Your task to perform on an android device: Show the shopping cart on bestbuy.com. Search for "acer predator" on bestbuy.com, select the first entry, and add it to the cart. Image 0: 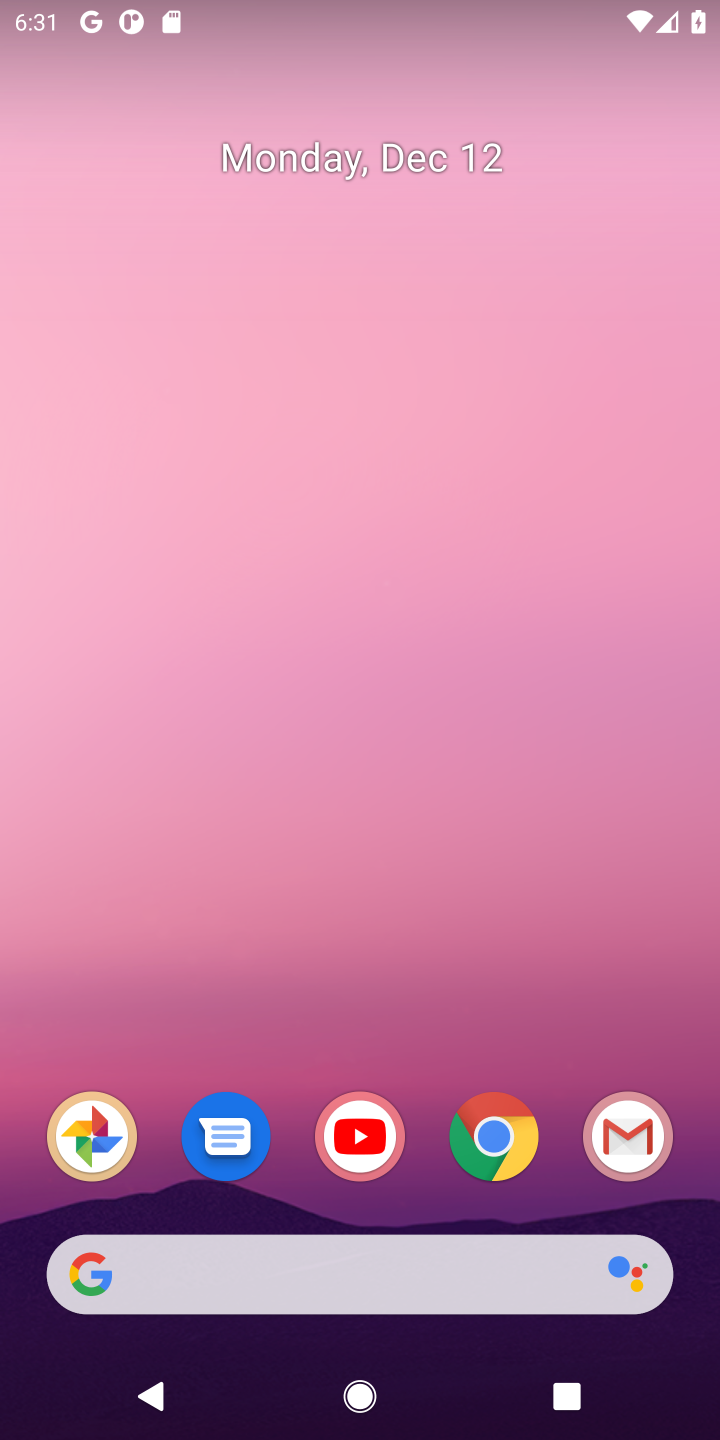
Step 0: click (499, 1135)
Your task to perform on an android device: Show the shopping cart on bestbuy.com. Search for "acer predator" on bestbuy.com, select the first entry, and add it to the cart. Image 1: 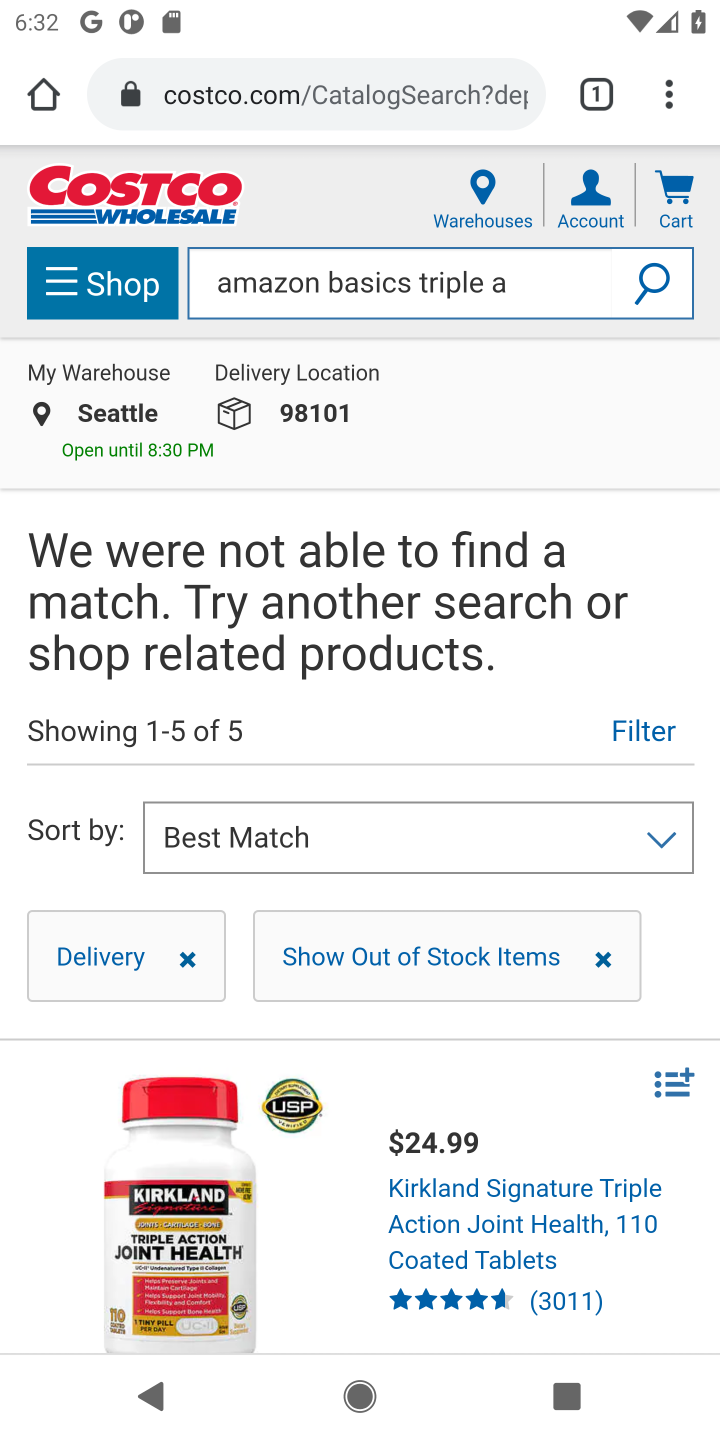
Step 1: click (289, 95)
Your task to perform on an android device: Show the shopping cart on bestbuy.com. Search for "acer predator" on bestbuy.com, select the first entry, and add it to the cart. Image 2: 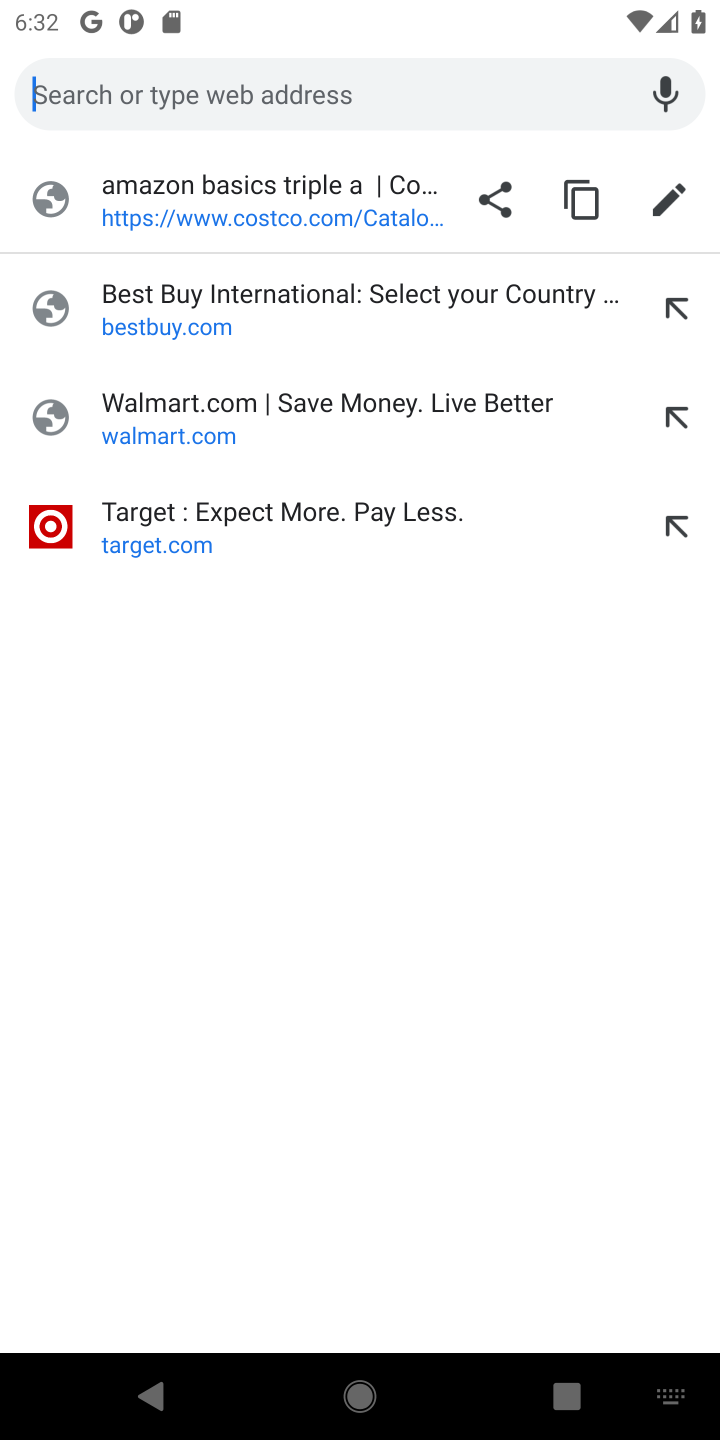
Step 2: click (148, 333)
Your task to perform on an android device: Show the shopping cart on bestbuy.com. Search for "acer predator" on bestbuy.com, select the first entry, and add it to the cart. Image 3: 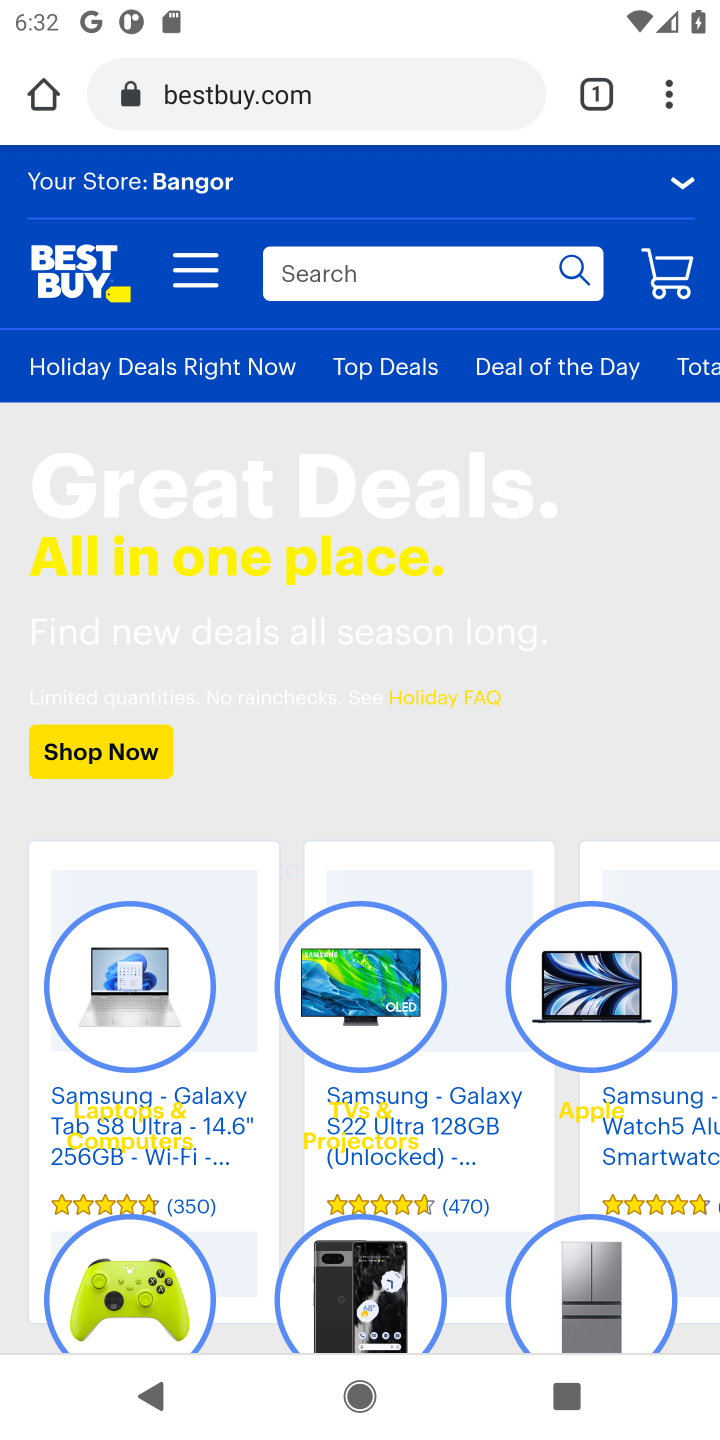
Step 3: click (678, 265)
Your task to perform on an android device: Show the shopping cart on bestbuy.com. Search for "acer predator" on bestbuy.com, select the first entry, and add it to the cart. Image 4: 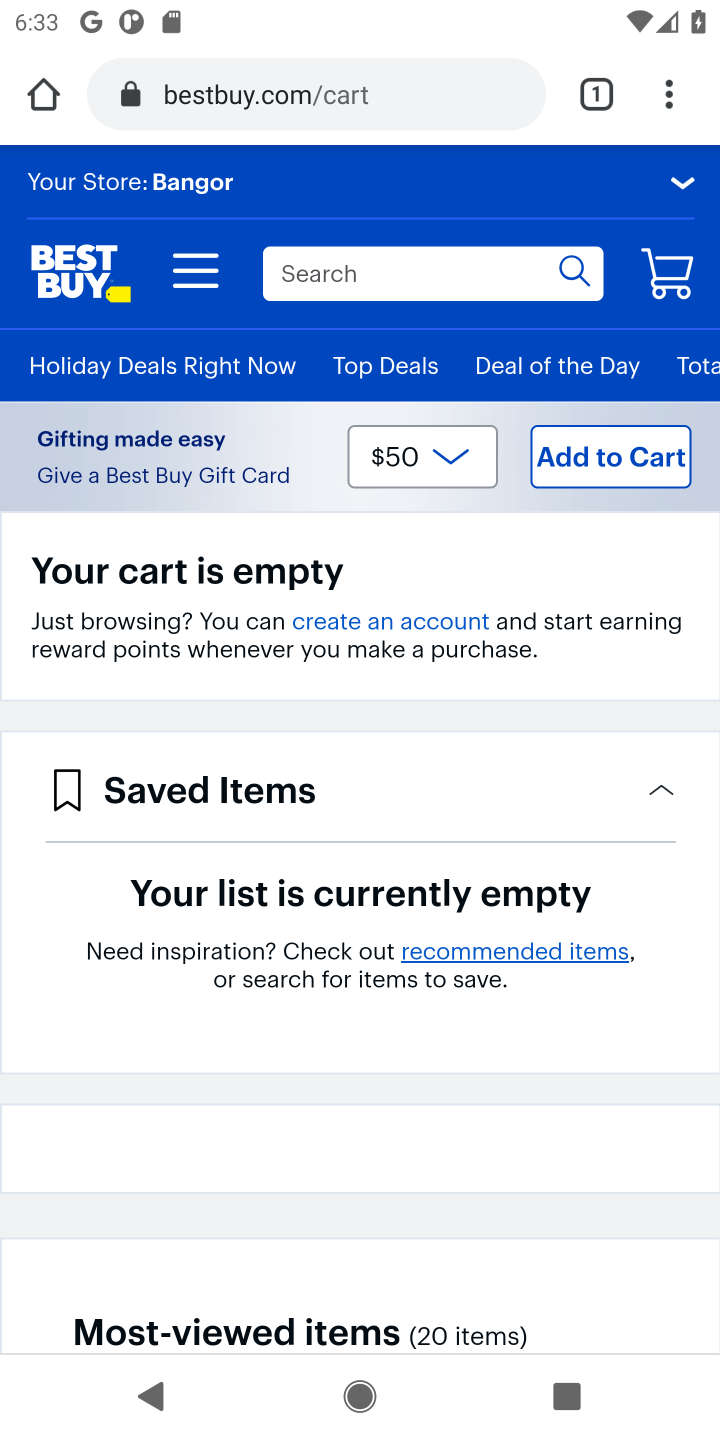
Step 4: click (327, 267)
Your task to perform on an android device: Show the shopping cart on bestbuy.com. Search for "acer predator" on bestbuy.com, select the first entry, and add it to the cart. Image 5: 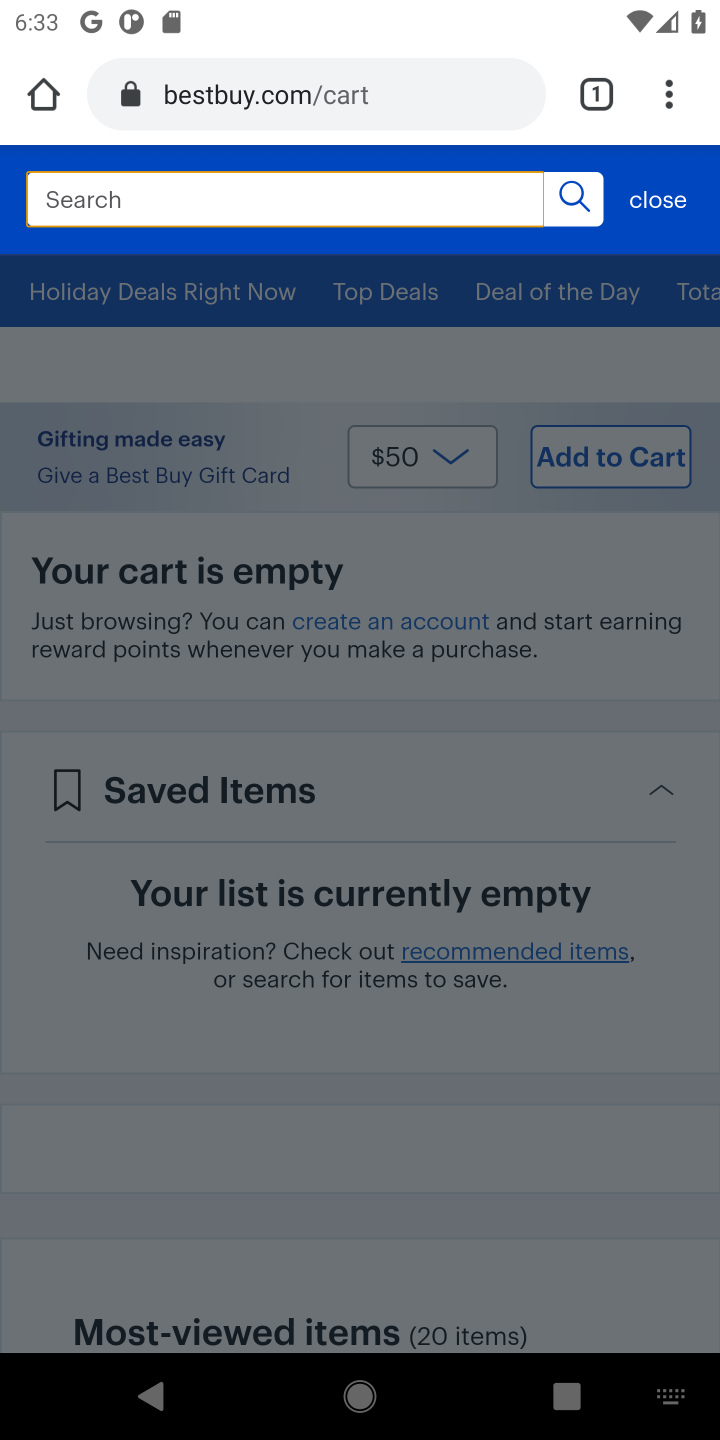
Step 5: type "acer predator"
Your task to perform on an android device: Show the shopping cart on bestbuy.com. Search for "acer predator" on bestbuy.com, select the first entry, and add it to the cart. Image 6: 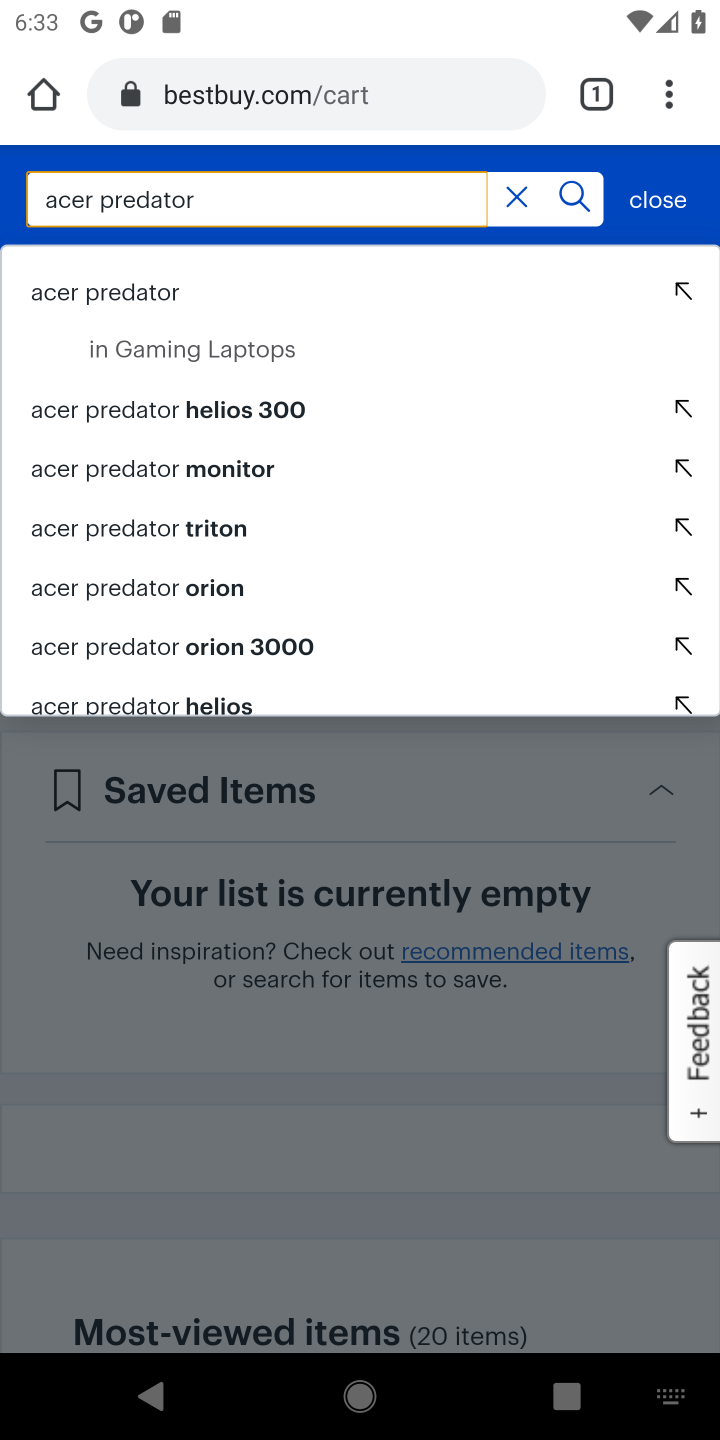
Step 6: click (103, 301)
Your task to perform on an android device: Show the shopping cart on bestbuy.com. Search for "acer predator" on bestbuy.com, select the first entry, and add it to the cart. Image 7: 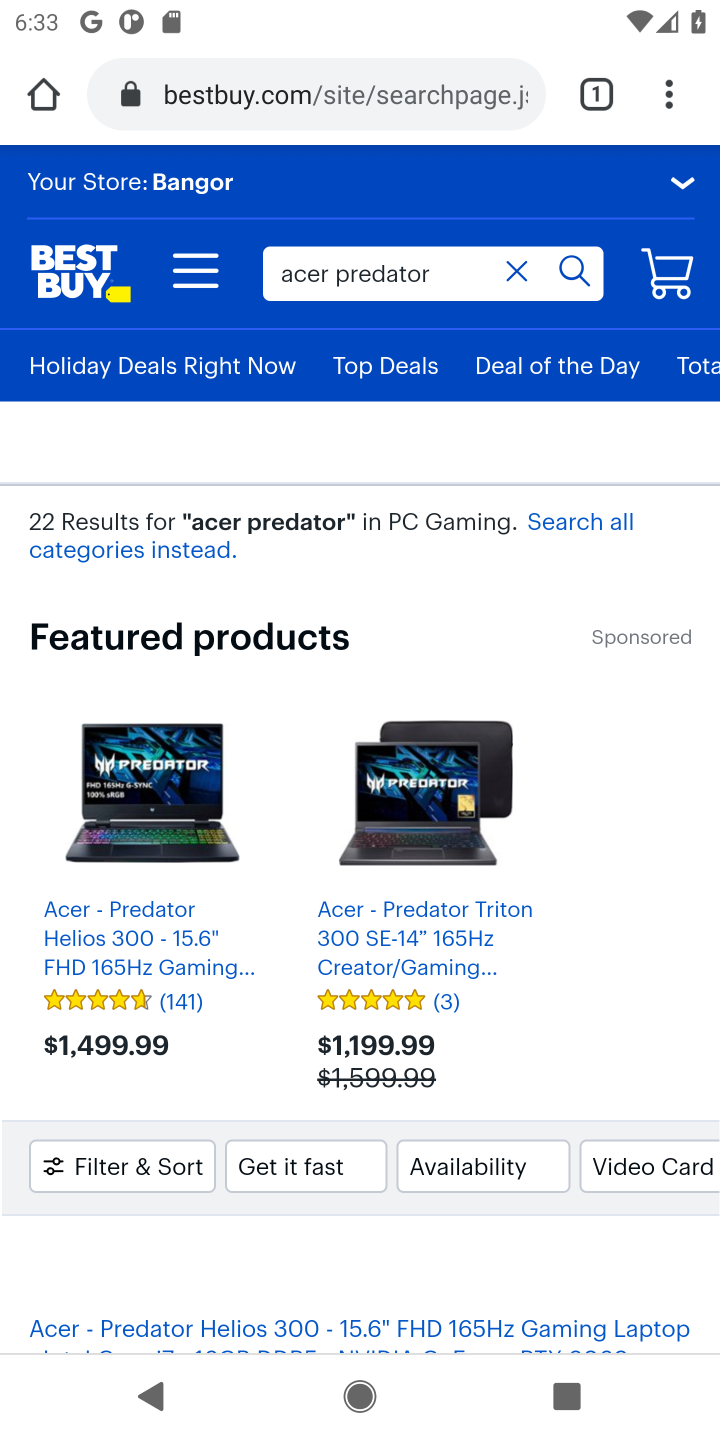
Step 7: drag from (198, 962) to (194, 412)
Your task to perform on an android device: Show the shopping cart on bestbuy.com. Search for "acer predator" on bestbuy.com, select the first entry, and add it to the cart. Image 8: 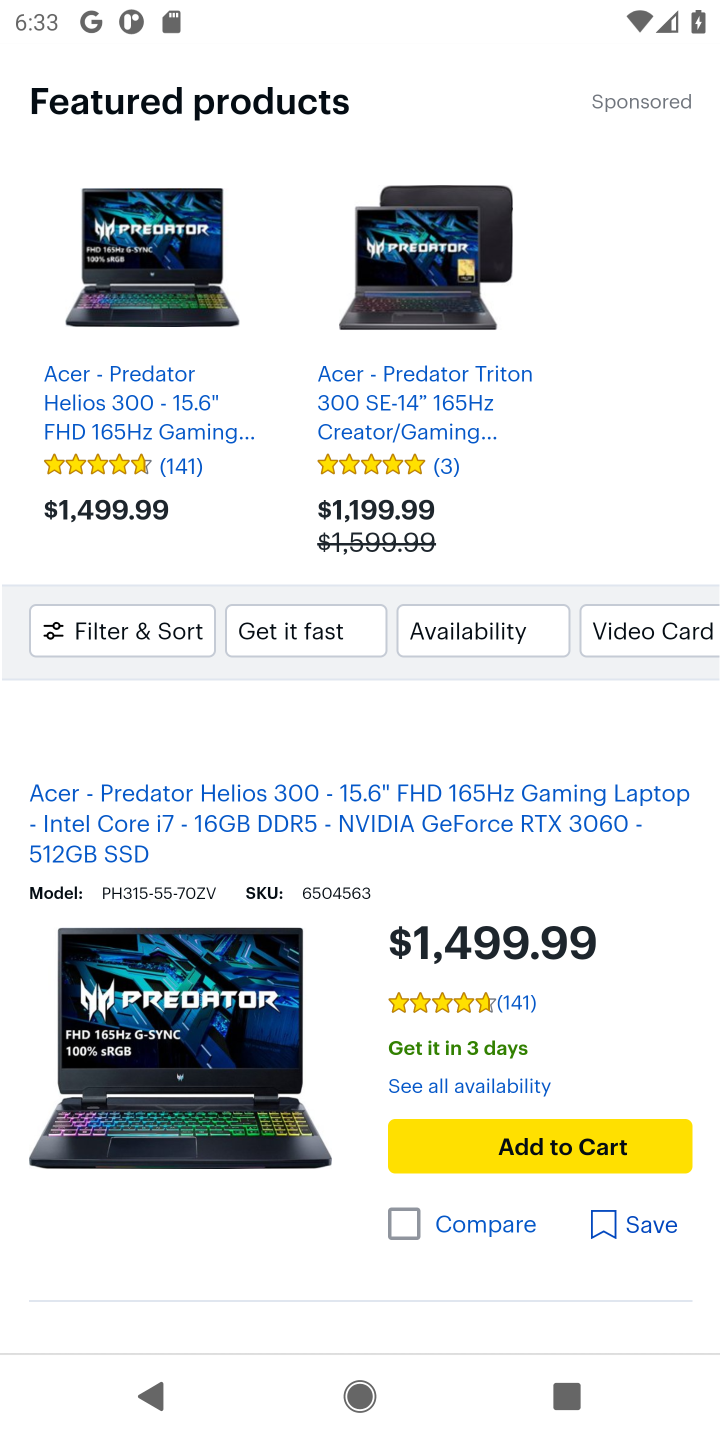
Step 8: drag from (194, 908) to (228, 590)
Your task to perform on an android device: Show the shopping cart on bestbuy.com. Search for "acer predator" on bestbuy.com, select the first entry, and add it to the cart. Image 9: 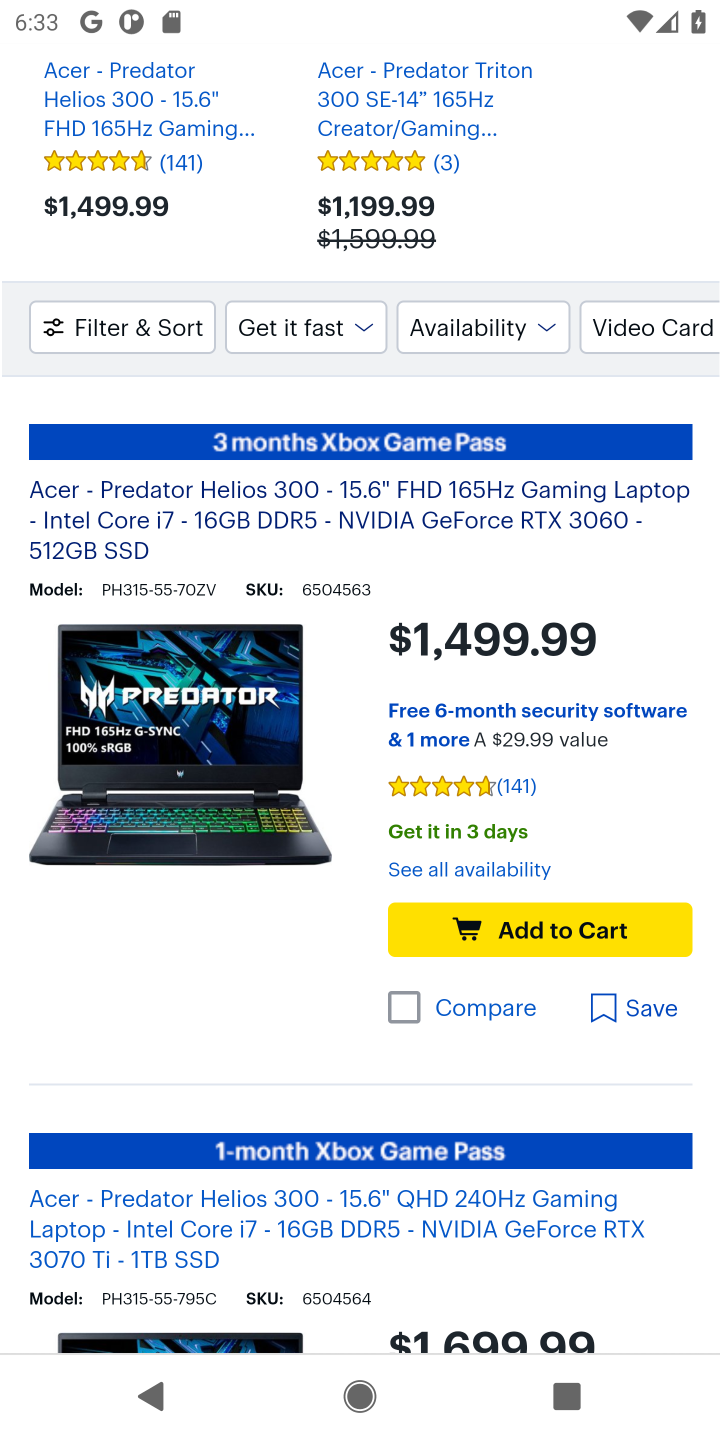
Step 9: click (515, 912)
Your task to perform on an android device: Show the shopping cart on bestbuy.com. Search for "acer predator" on bestbuy.com, select the first entry, and add it to the cart. Image 10: 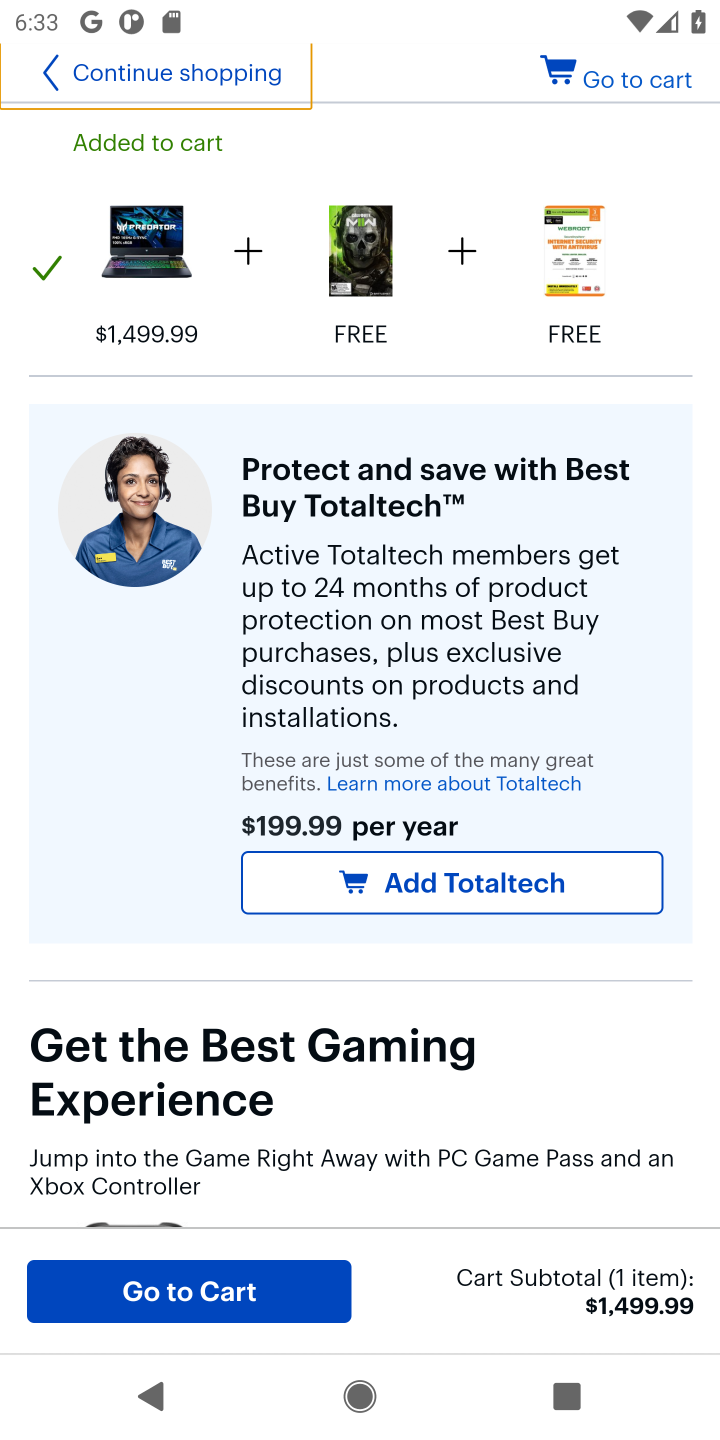
Step 10: task complete